Your task to perform on an android device: Go to CNN.com Image 0: 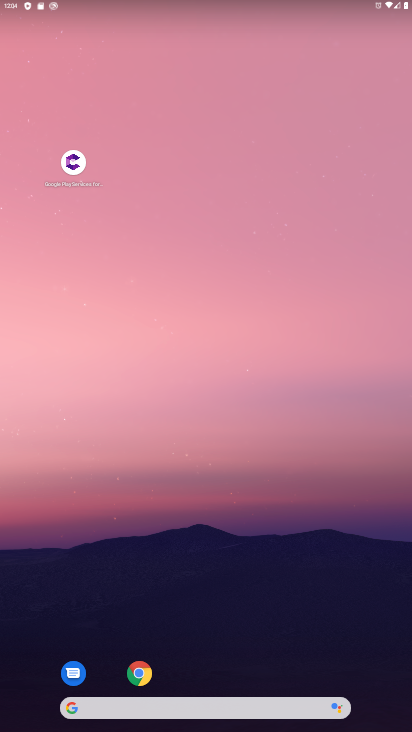
Step 0: click (147, 675)
Your task to perform on an android device: Go to CNN.com Image 1: 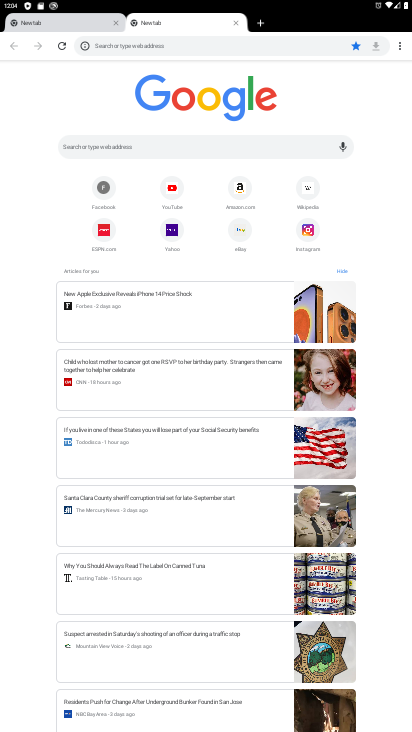
Step 1: click (210, 140)
Your task to perform on an android device: Go to CNN.com Image 2: 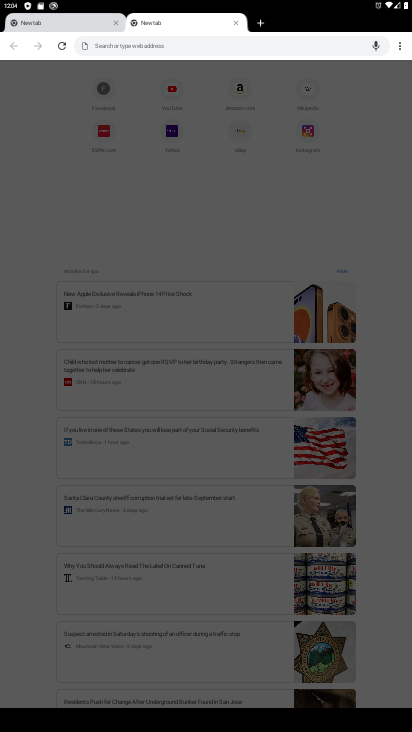
Step 2: type "cnn.com"
Your task to perform on an android device: Go to CNN.com Image 3: 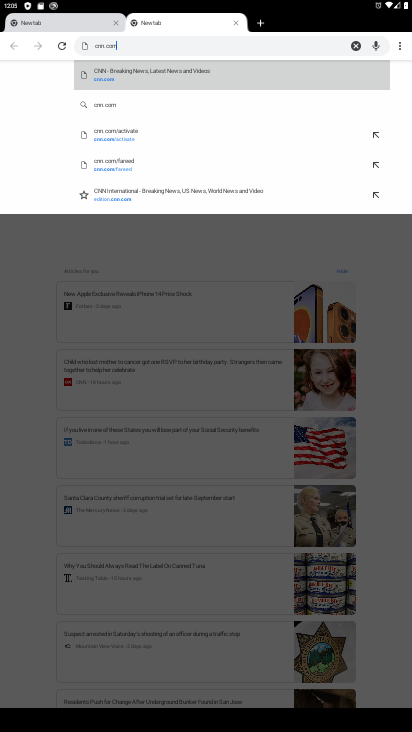
Step 3: click (139, 83)
Your task to perform on an android device: Go to CNN.com Image 4: 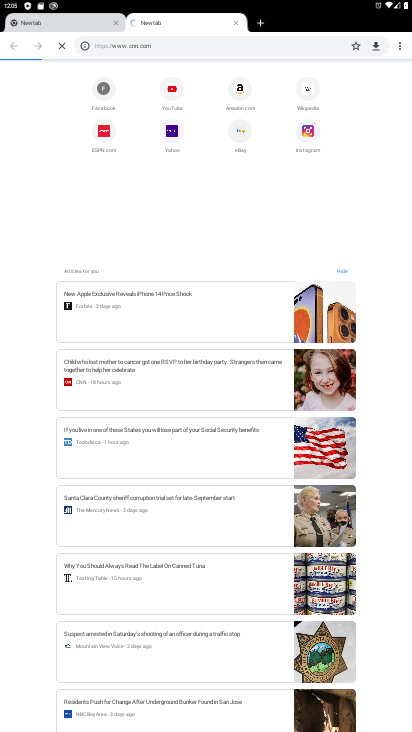
Step 4: task complete